Your task to perform on an android device: turn on notifications settings in the gmail app Image 0: 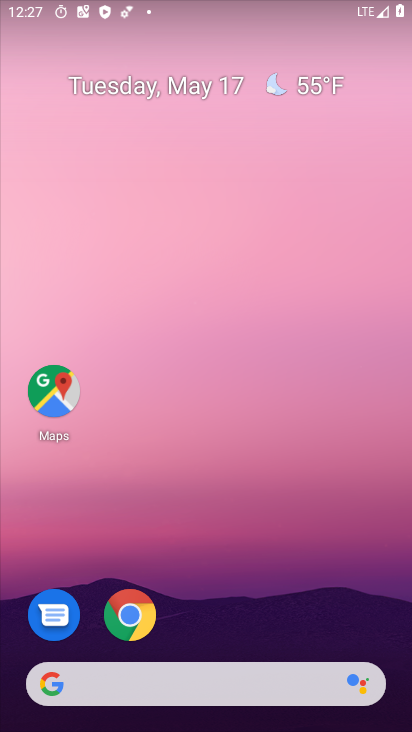
Step 0: drag from (314, 584) to (286, 0)
Your task to perform on an android device: turn on notifications settings in the gmail app Image 1: 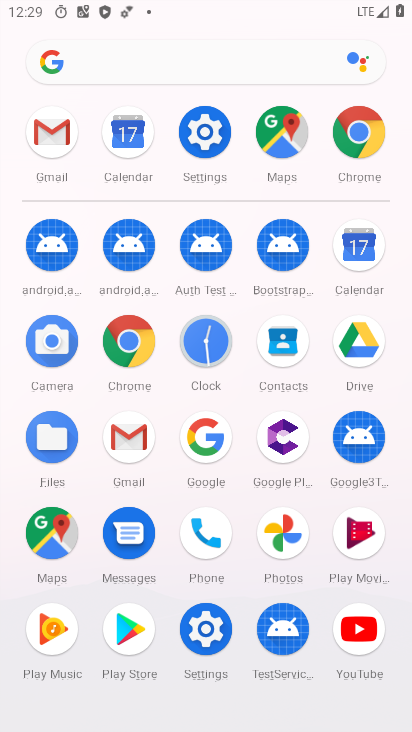
Step 1: click (325, 239)
Your task to perform on an android device: turn on notifications settings in the gmail app Image 2: 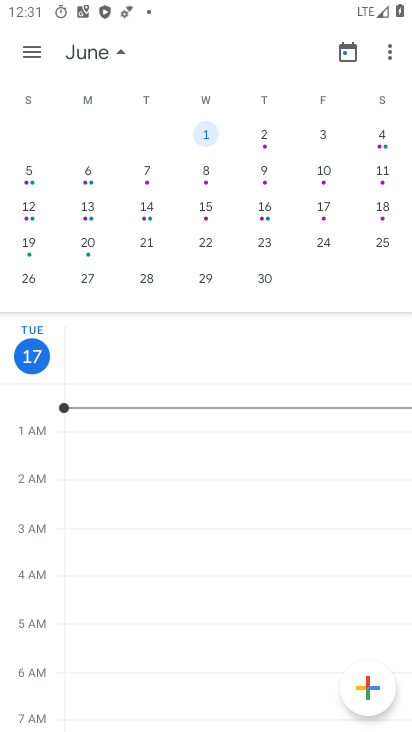
Step 2: press home button
Your task to perform on an android device: turn on notifications settings in the gmail app Image 3: 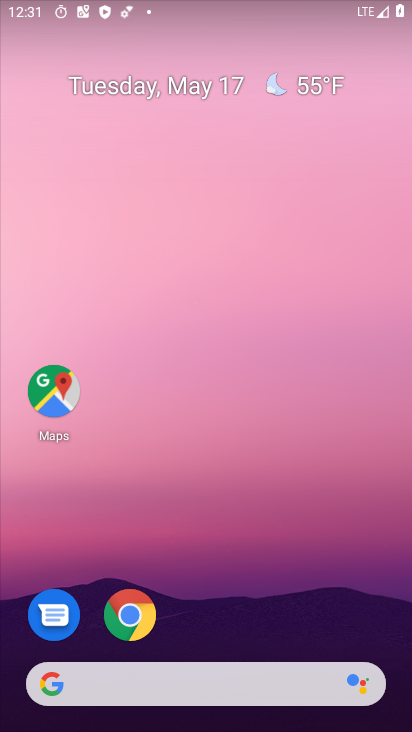
Step 3: drag from (367, 582) to (351, 238)
Your task to perform on an android device: turn on notifications settings in the gmail app Image 4: 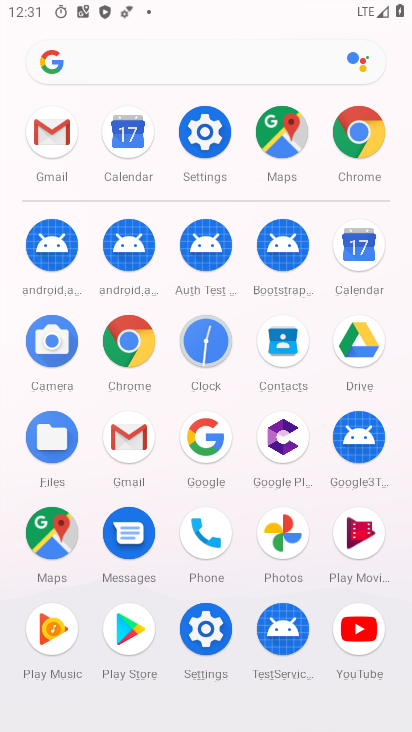
Step 4: click (42, 136)
Your task to perform on an android device: turn on notifications settings in the gmail app Image 5: 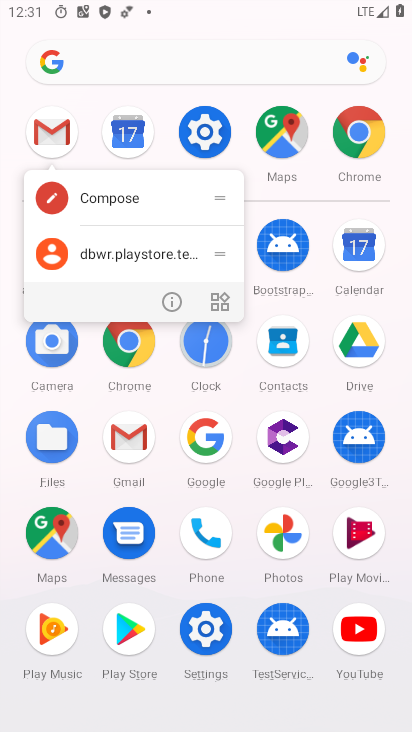
Step 5: click (166, 310)
Your task to perform on an android device: turn on notifications settings in the gmail app Image 6: 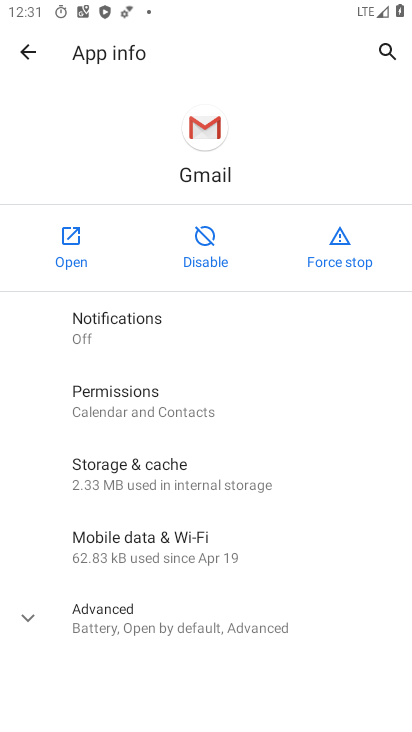
Step 6: click (167, 312)
Your task to perform on an android device: turn on notifications settings in the gmail app Image 7: 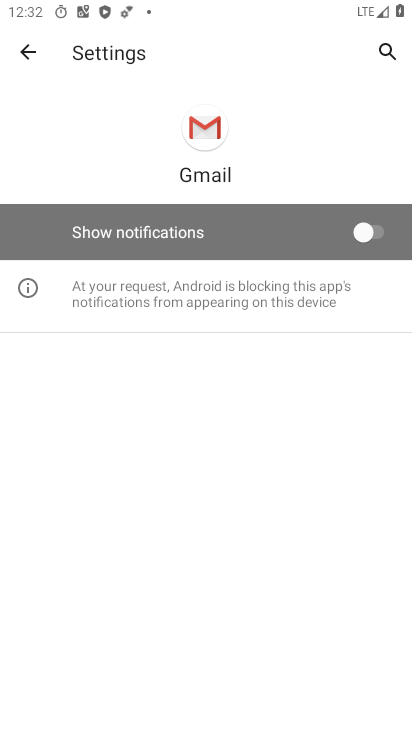
Step 7: click (355, 230)
Your task to perform on an android device: turn on notifications settings in the gmail app Image 8: 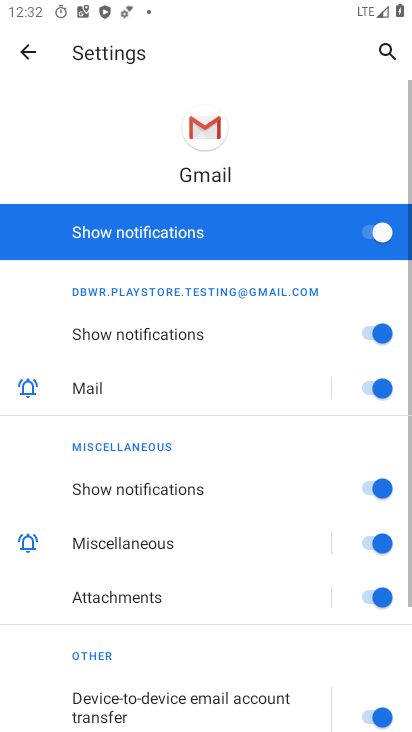
Step 8: task complete